Your task to perform on an android device: delete browsing data in the chrome app Image 0: 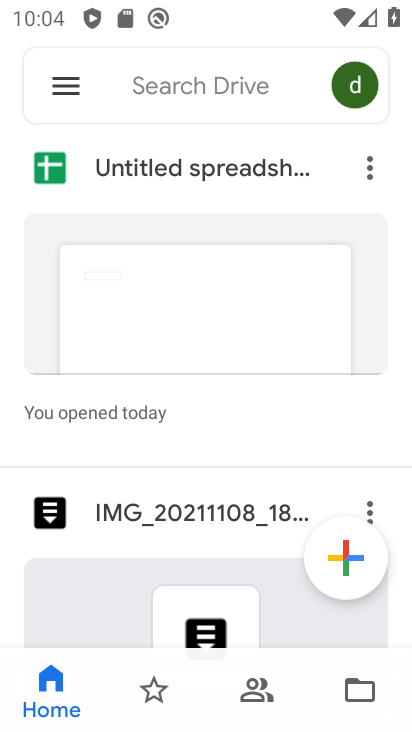
Step 0: press back button
Your task to perform on an android device: delete browsing data in the chrome app Image 1: 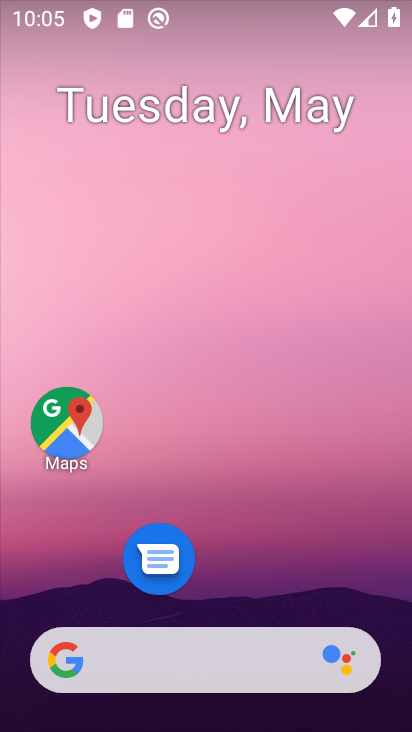
Step 1: drag from (277, 673) to (242, 139)
Your task to perform on an android device: delete browsing data in the chrome app Image 2: 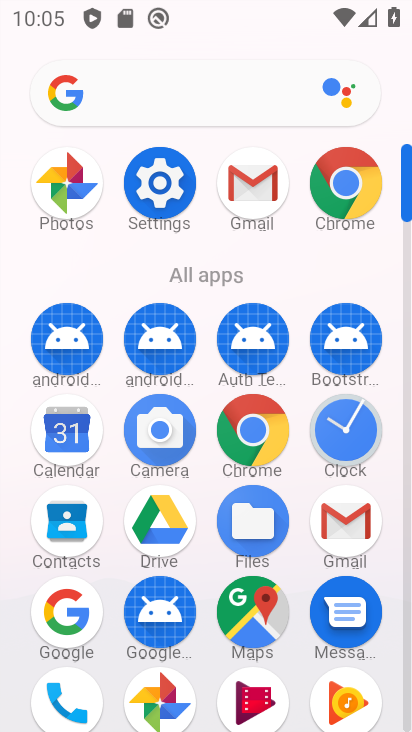
Step 2: click (251, 436)
Your task to perform on an android device: delete browsing data in the chrome app Image 3: 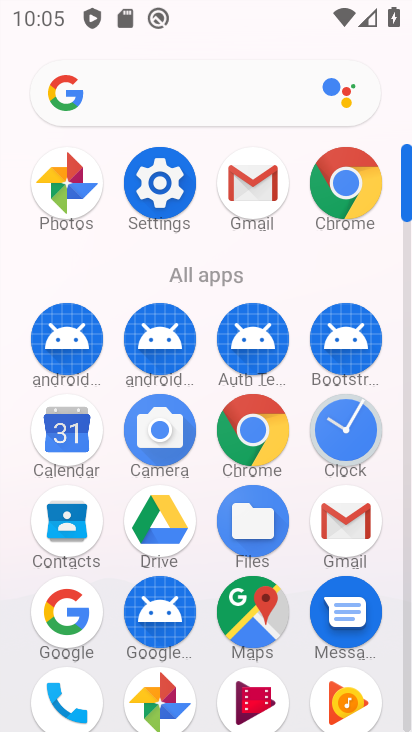
Step 3: click (251, 437)
Your task to perform on an android device: delete browsing data in the chrome app Image 4: 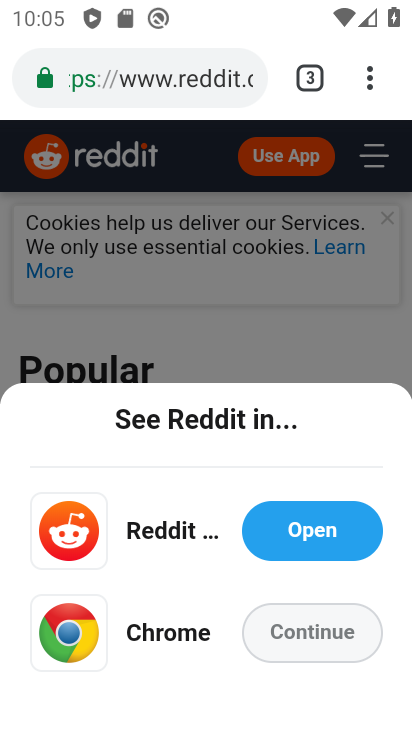
Step 4: press back button
Your task to perform on an android device: delete browsing data in the chrome app Image 5: 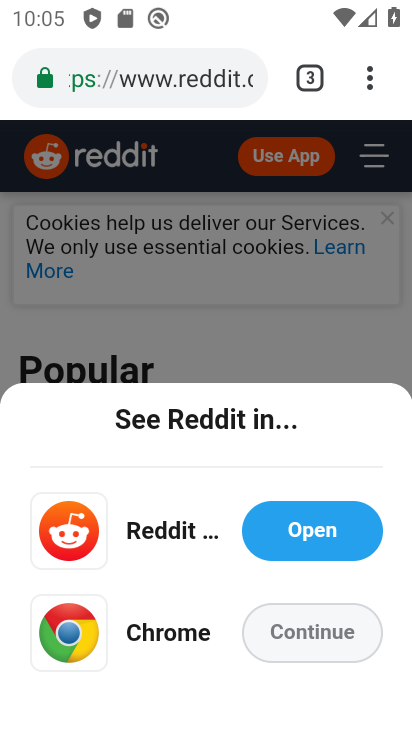
Step 5: press back button
Your task to perform on an android device: delete browsing data in the chrome app Image 6: 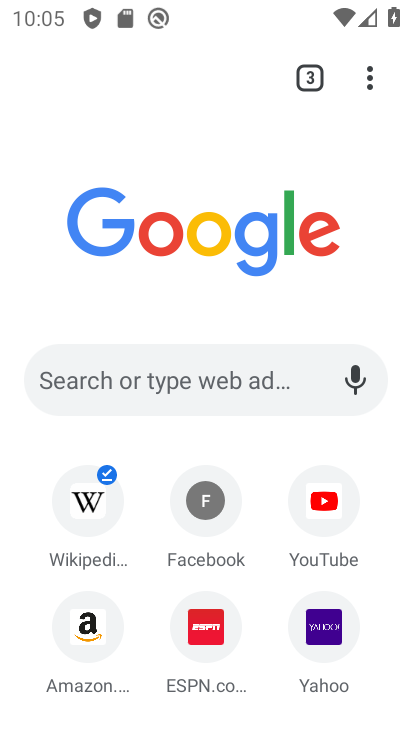
Step 6: press back button
Your task to perform on an android device: delete browsing data in the chrome app Image 7: 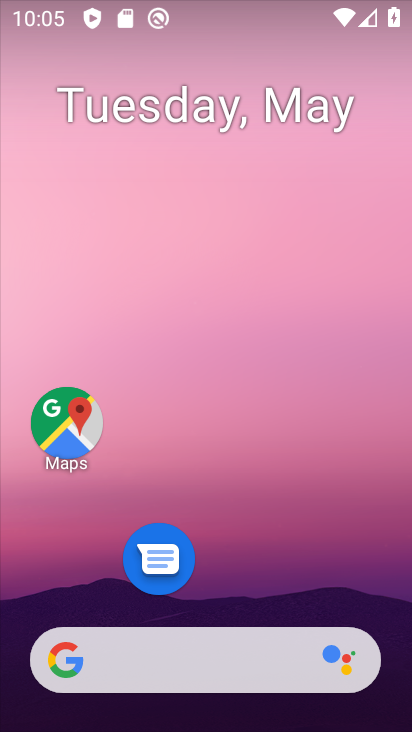
Step 7: drag from (264, 706) to (205, 159)
Your task to perform on an android device: delete browsing data in the chrome app Image 8: 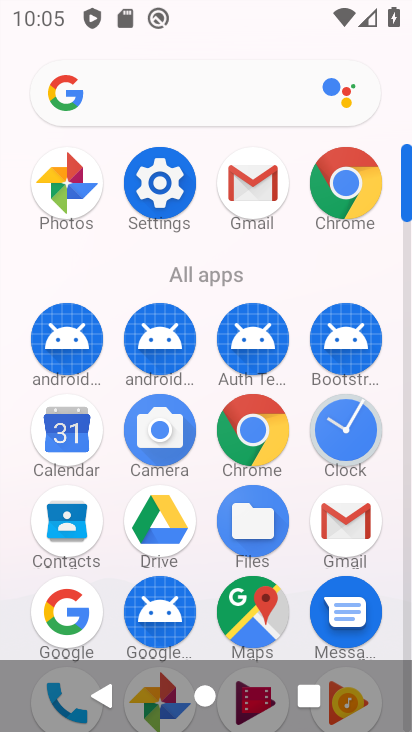
Step 8: click (349, 189)
Your task to perform on an android device: delete browsing data in the chrome app Image 9: 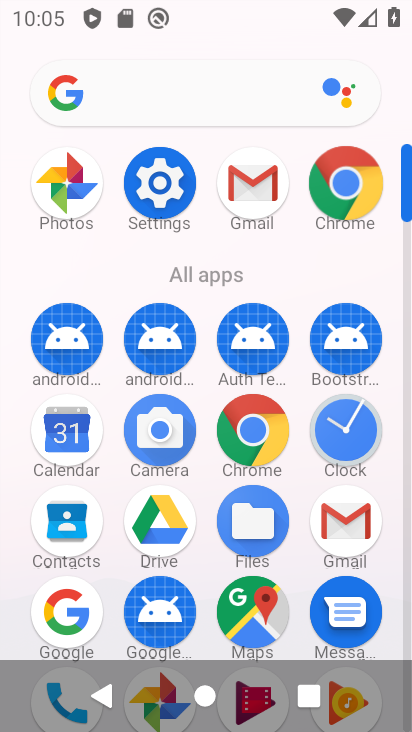
Step 9: click (346, 191)
Your task to perform on an android device: delete browsing data in the chrome app Image 10: 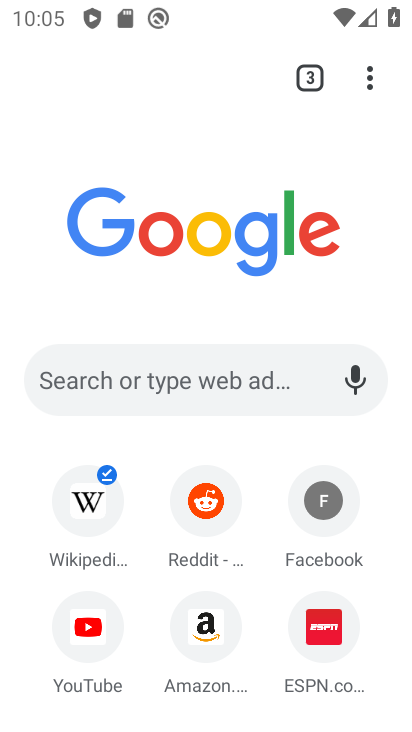
Step 10: drag from (359, 78) to (81, 395)
Your task to perform on an android device: delete browsing data in the chrome app Image 11: 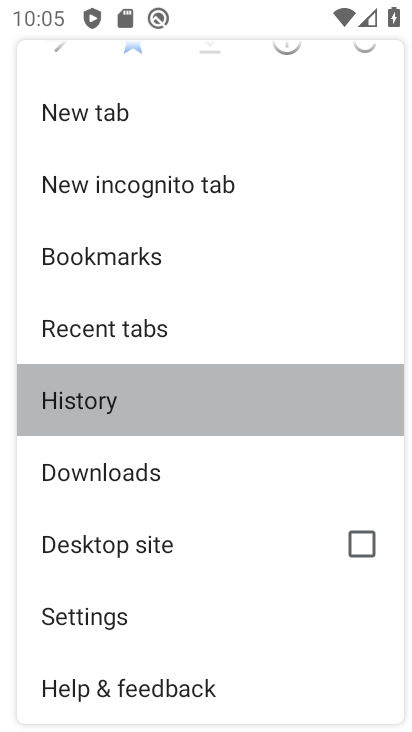
Step 11: click (88, 393)
Your task to perform on an android device: delete browsing data in the chrome app Image 12: 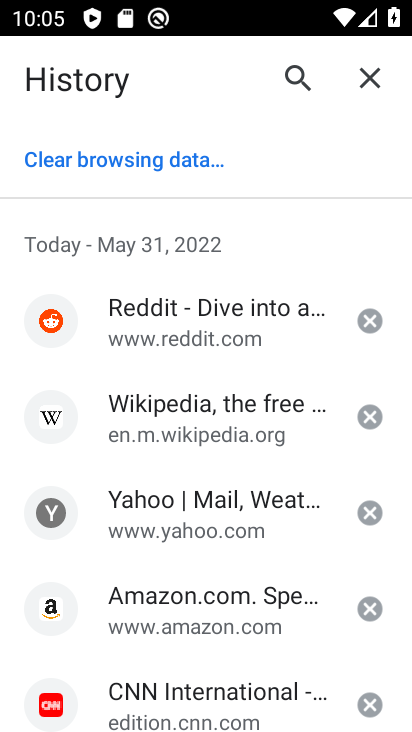
Step 12: click (126, 164)
Your task to perform on an android device: delete browsing data in the chrome app Image 13: 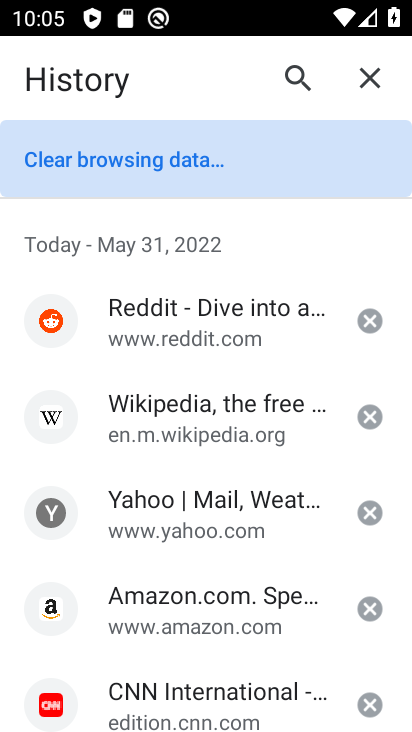
Step 13: click (127, 163)
Your task to perform on an android device: delete browsing data in the chrome app Image 14: 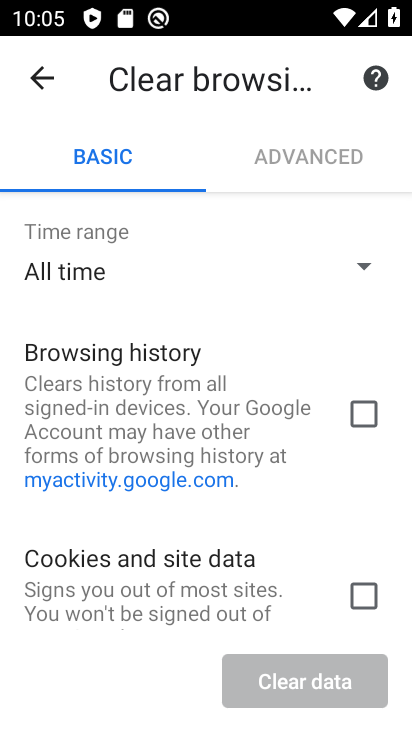
Step 14: click (305, 686)
Your task to perform on an android device: delete browsing data in the chrome app Image 15: 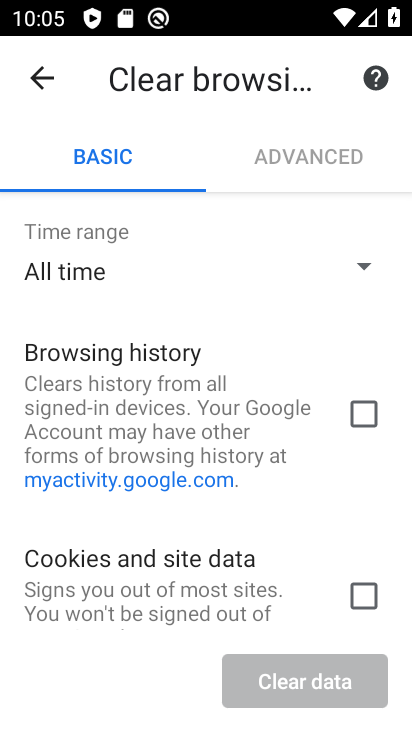
Step 15: task complete